Your task to perform on an android device: Search for vegetarian restaurants on Maps Image 0: 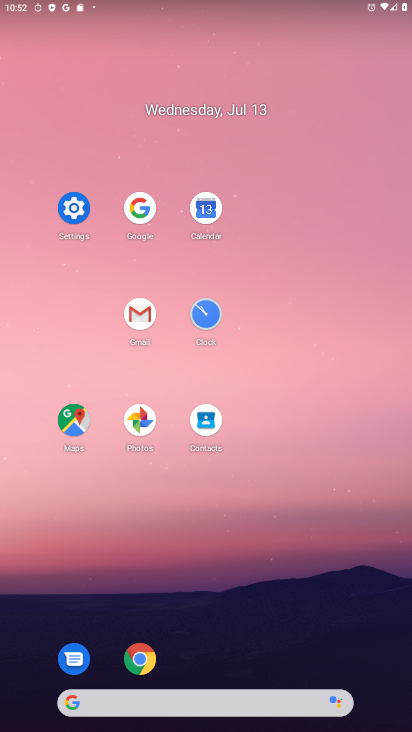
Step 0: click (73, 406)
Your task to perform on an android device: Search for vegetarian restaurants on Maps Image 1: 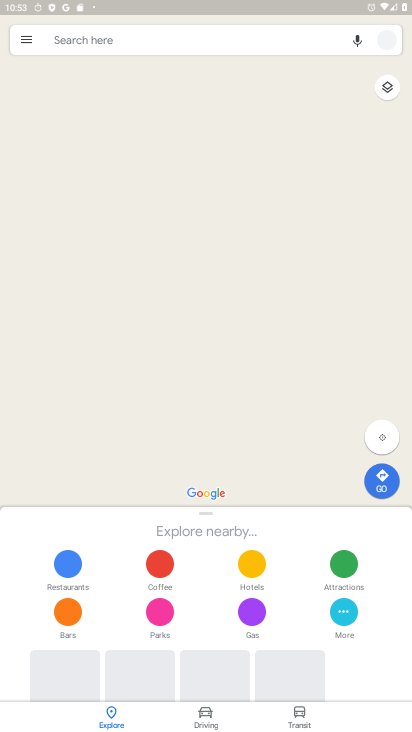
Step 1: click (247, 44)
Your task to perform on an android device: Search for vegetarian restaurants on Maps Image 2: 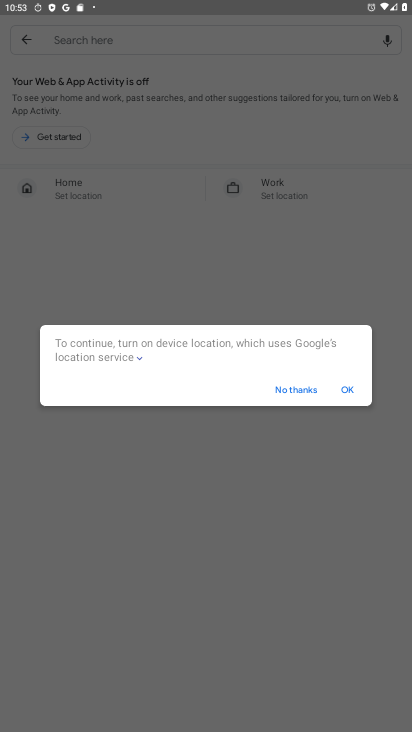
Step 2: click (349, 400)
Your task to perform on an android device: Search for vegetarian restaurants on Maps Image 3: 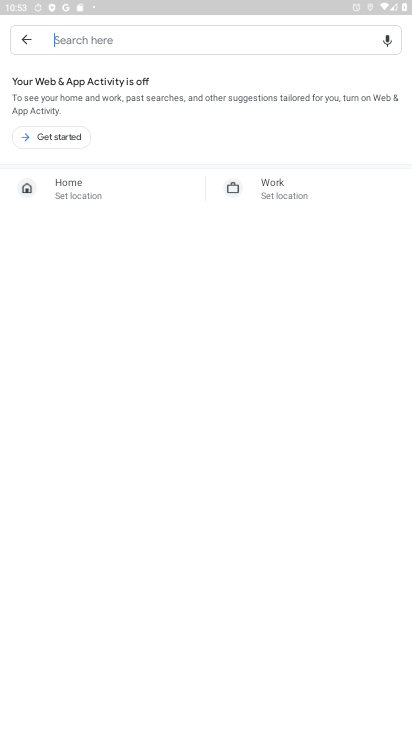
Step 3: type "vegetarian restaurants"
Your task to perform on an android device: Search for vegetarian restaurants on Maps Image 4: 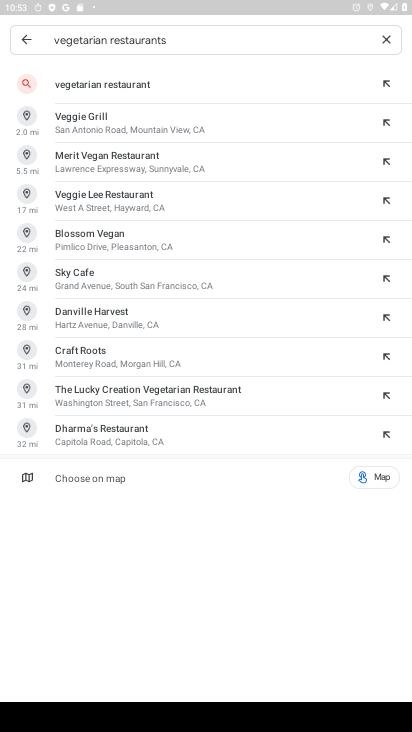
Step 4: task complete